Your task to perform on an android device: Go to Google Image 0: 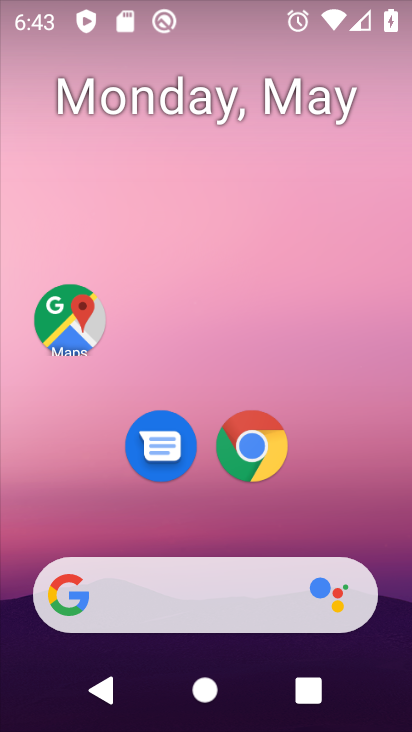
Step 0: click (100, 594)
Your task to perform on an android device: Go to Google Image 1: 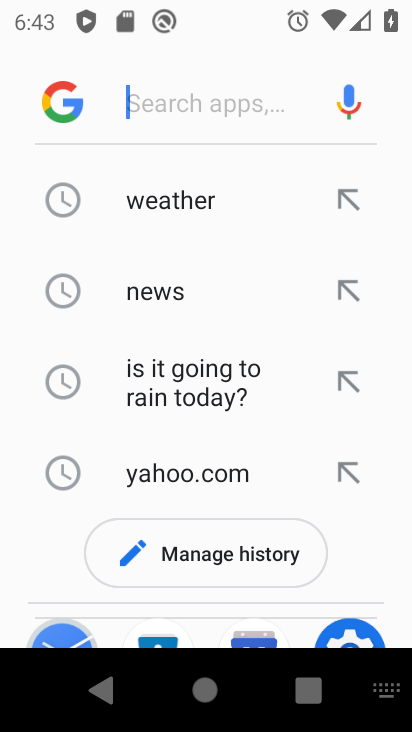
Step 1: click (54, 101)
Your task to perform on an android device: Go to Google Image 2: 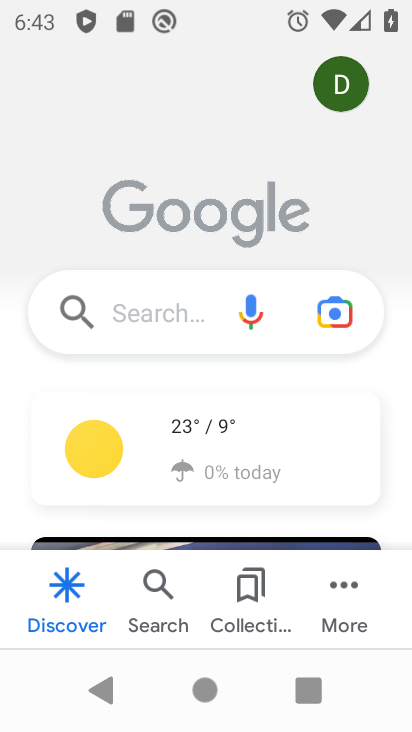
Step 2: click (163, 292)
Your task to perform on an android device: Go to Google Image 3: 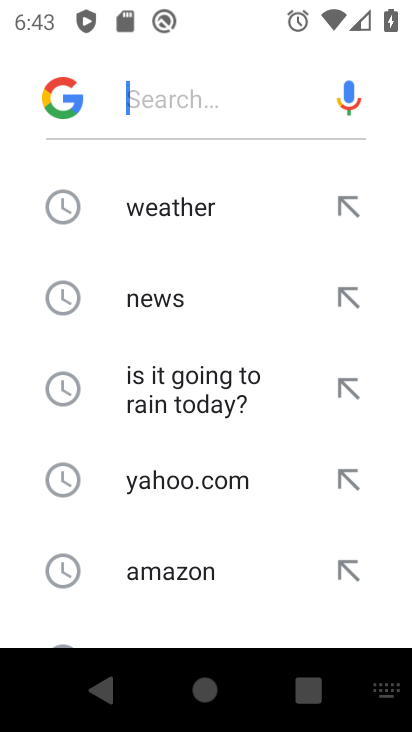
Step 3: task complete